Your task to perform on an android device: toggle airplane mode Image 0: 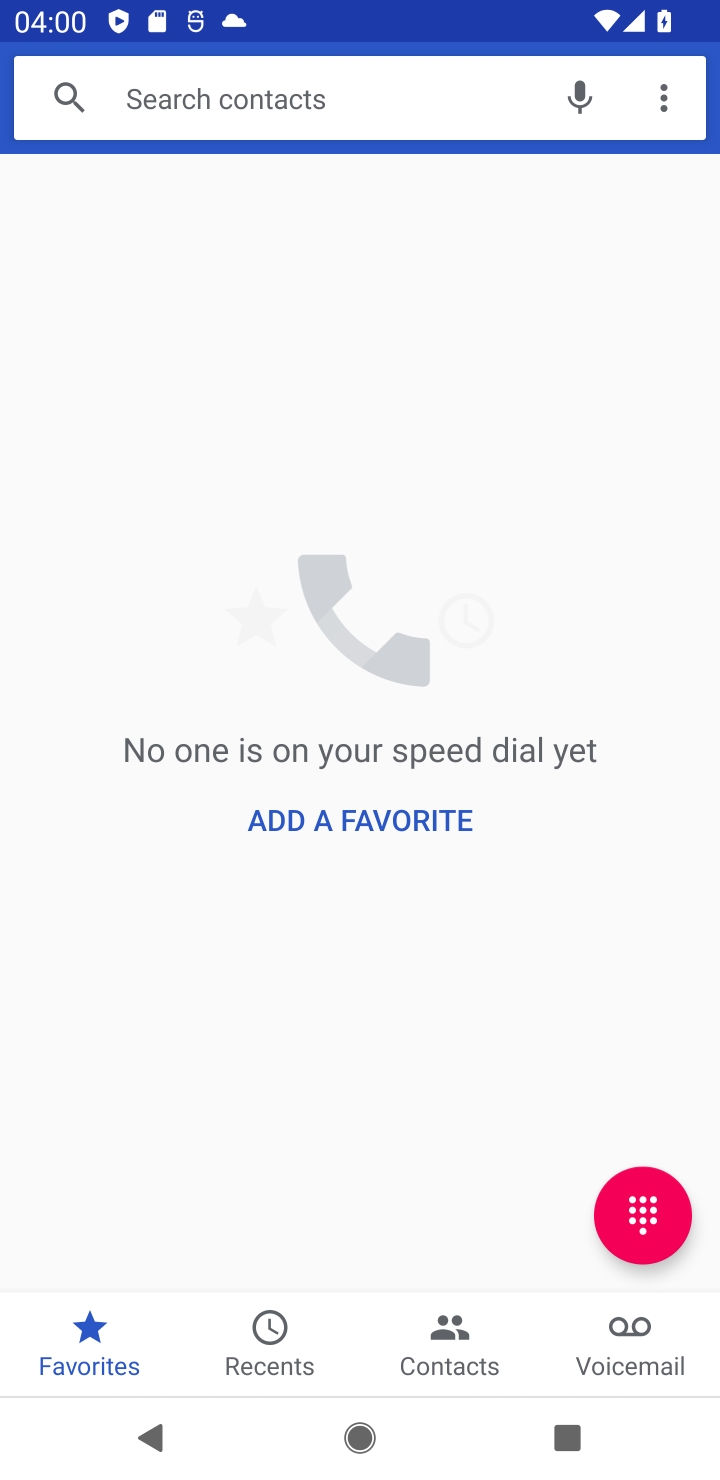
Step 0: press home button
Your task to perform on an android device: toggle airplane mode Image 1: 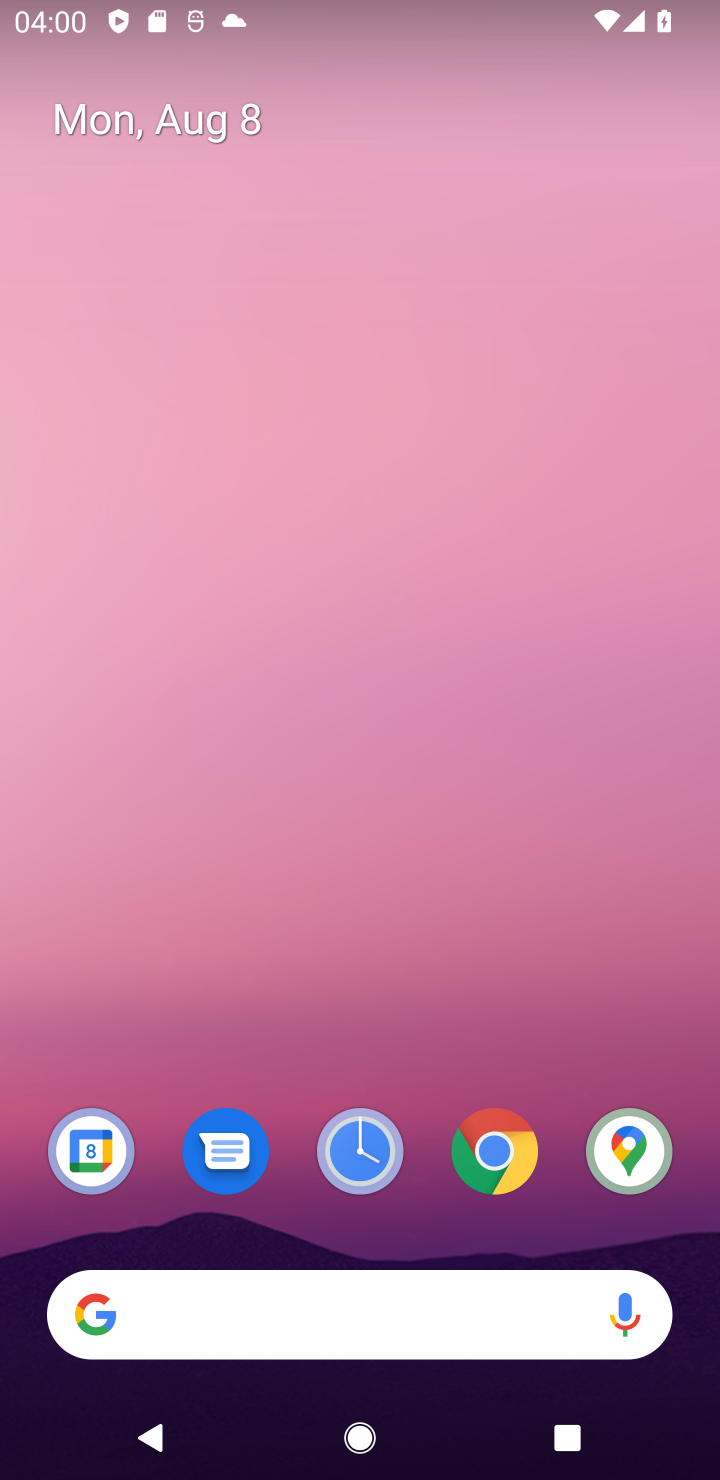
Step 1: drag from (365, 1074) to (367, 325)
Your task to perform on an android device: toggle airplane mode Image 2: 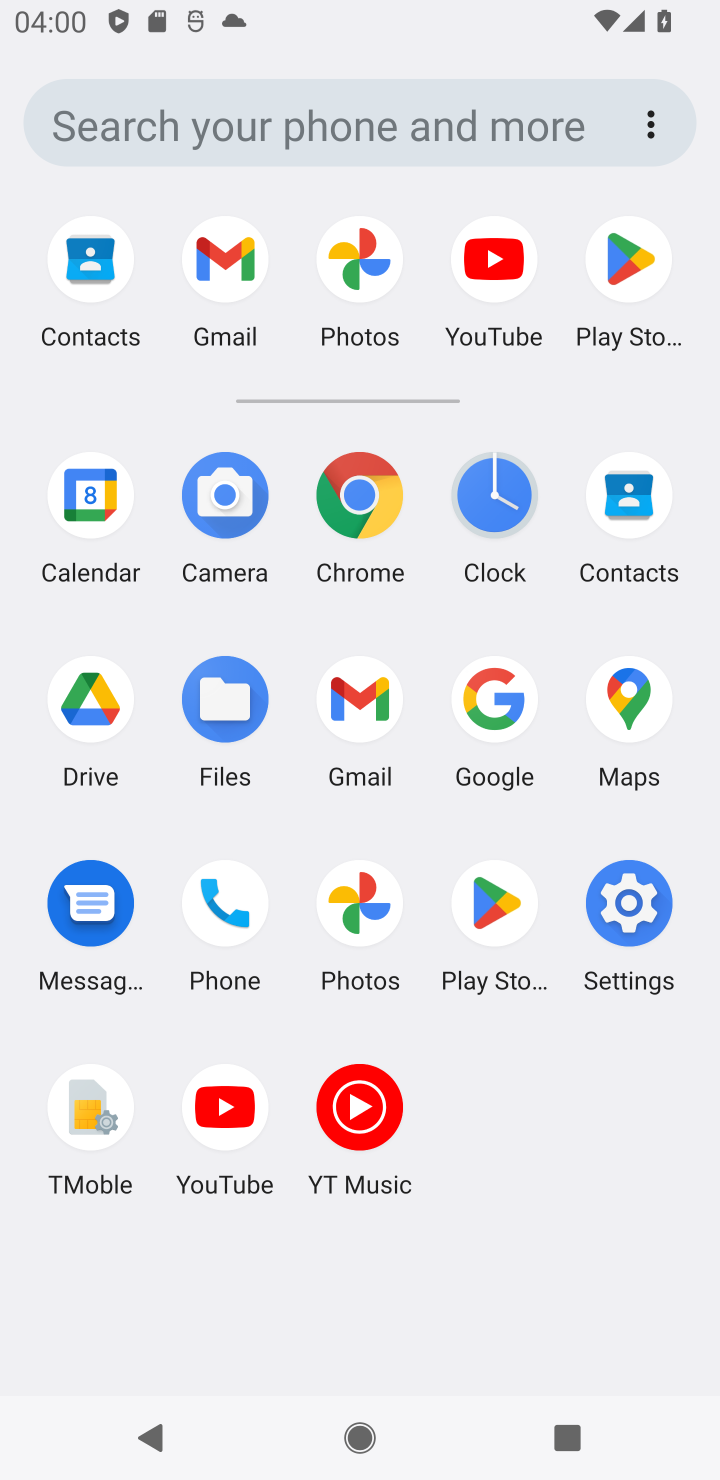
Step 2: click (648, 906)
Your task to perform on an android device: toggle airplane mode Image 3: 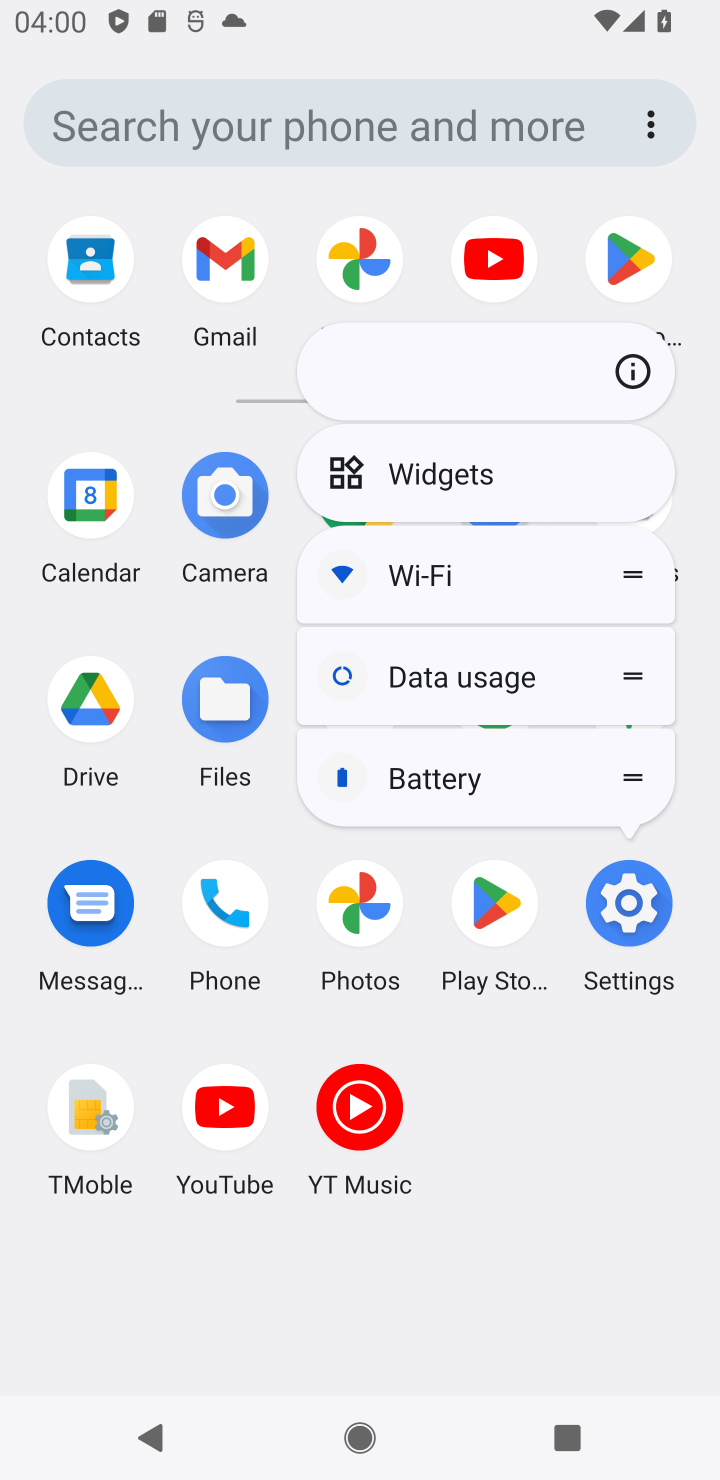
Step 3: click (651, 904)
Your task to perform on an android device: toggle airplane mode Image 4: 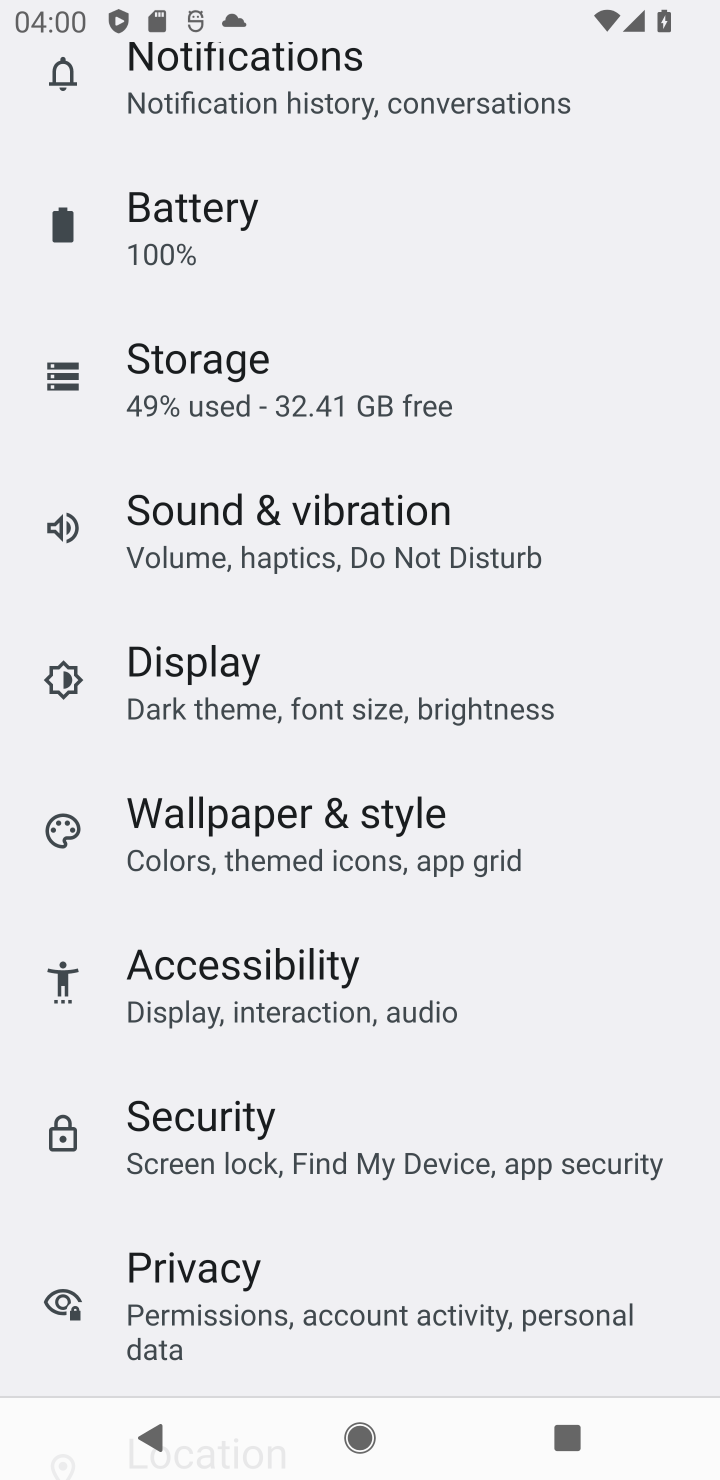
Step 4: drag from (373, 334) to (473, 981)
Your task to perform on an android device: toggle airplane mode Image 5: 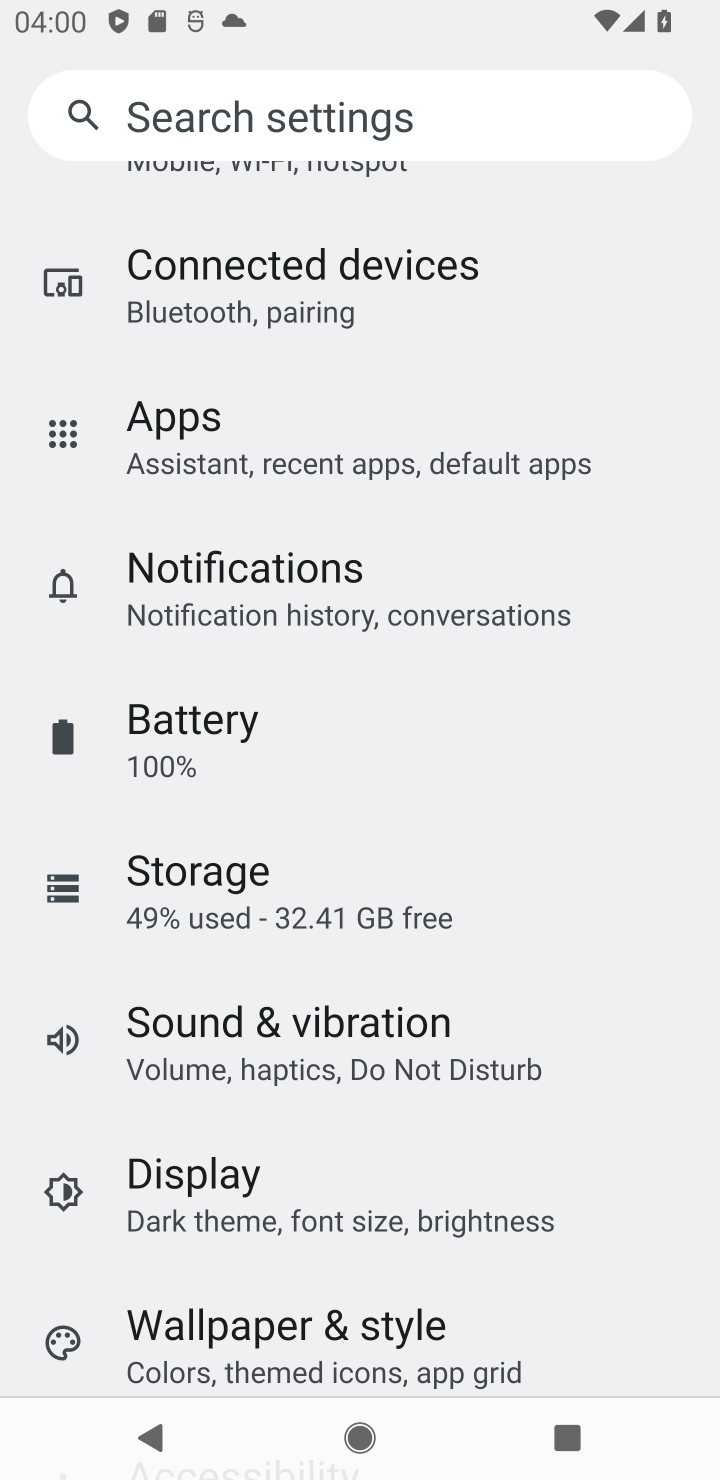
Step 5: drag from (354, 420) to (433, 970)
Your task to perform on an android device: toggle airplane mode Image 6: 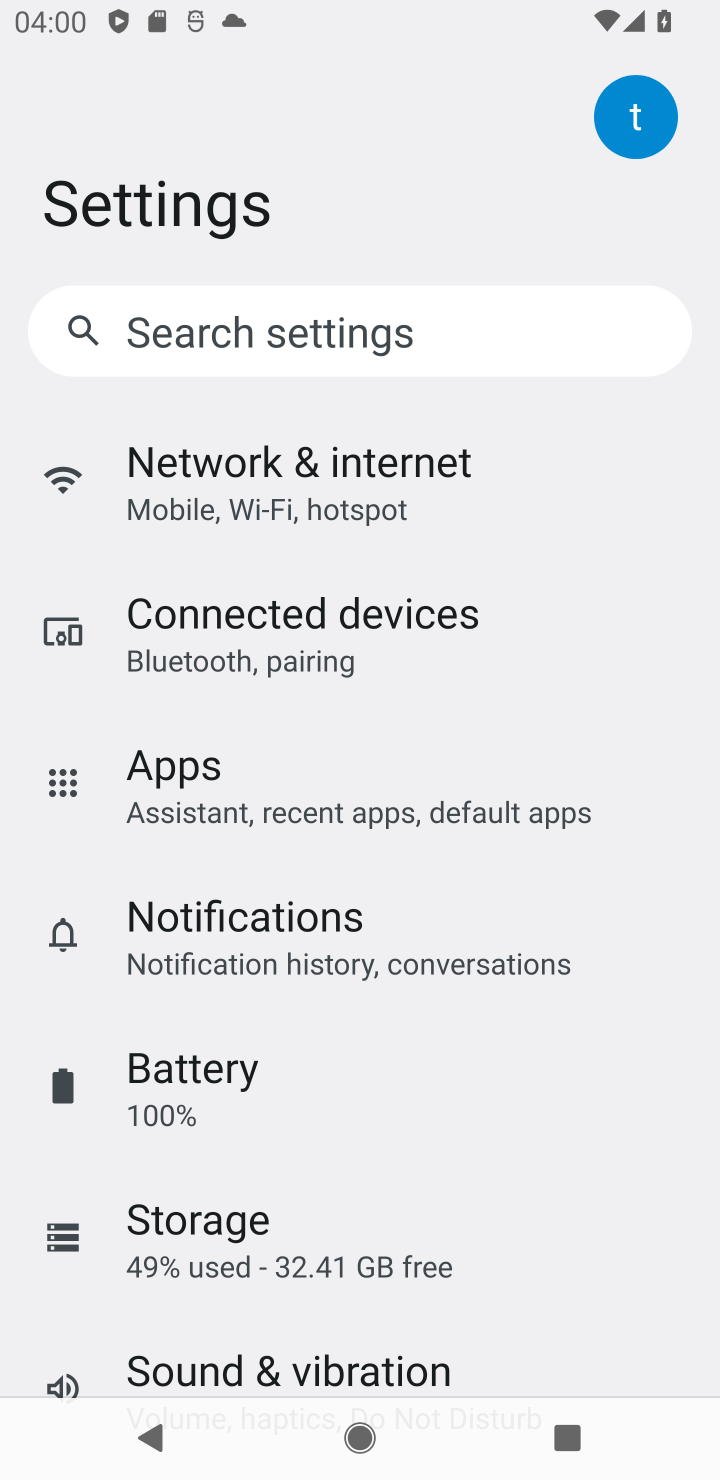
Step 6: click (333, 454)
Your task to perform on an android device: toggle airplane mode Image 7: 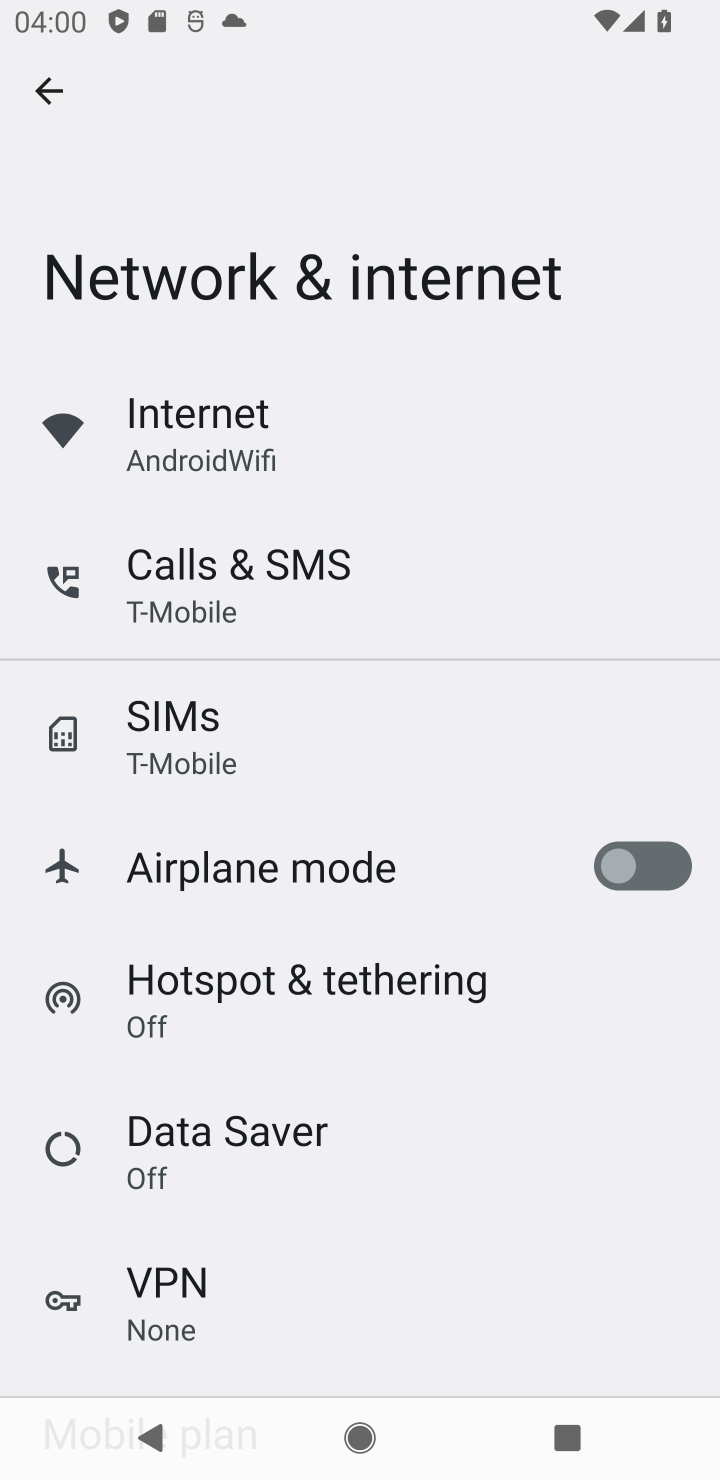
Step 7: click (653, 861)
Your task to perform on an android device: toggle airplane mode Image 8: 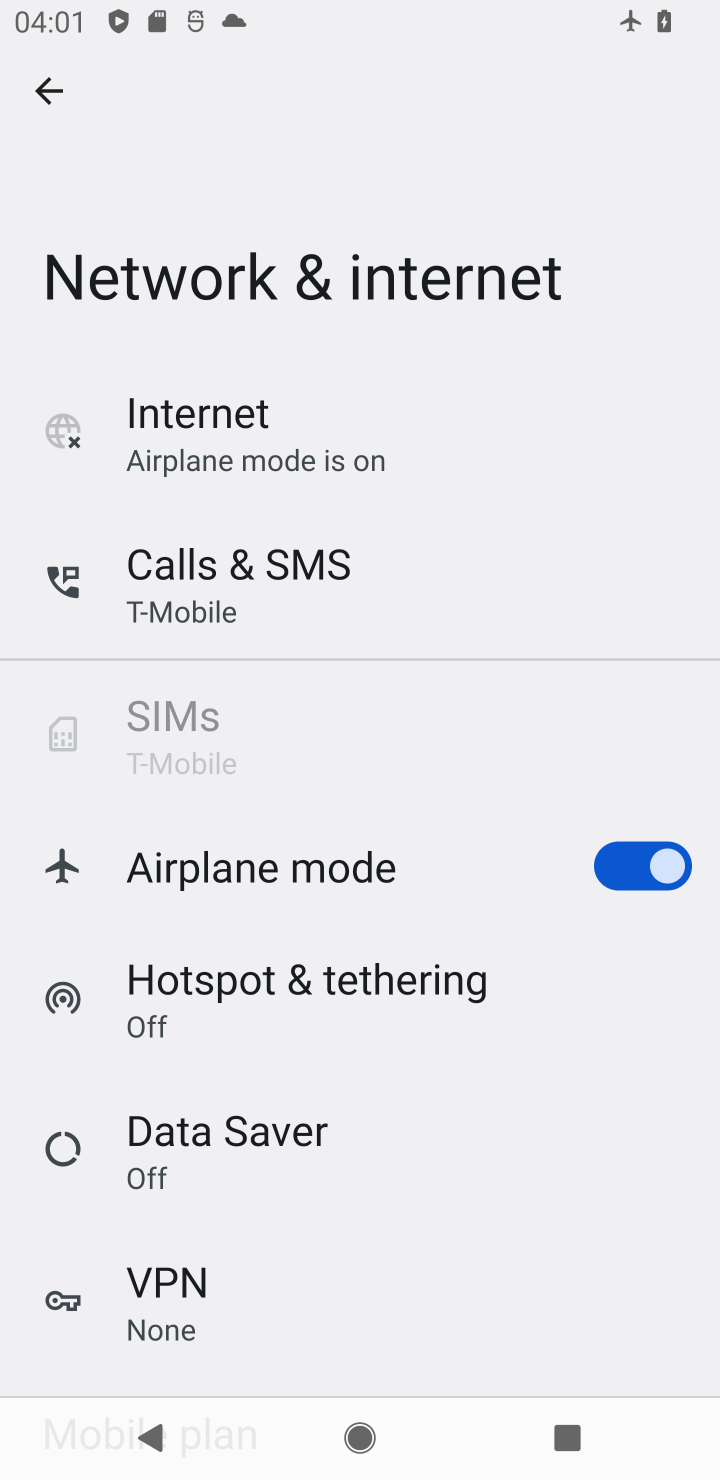
Step 8: task complete